Your task to perform on an android device: find snoozed emails in the gmail app Image 0: 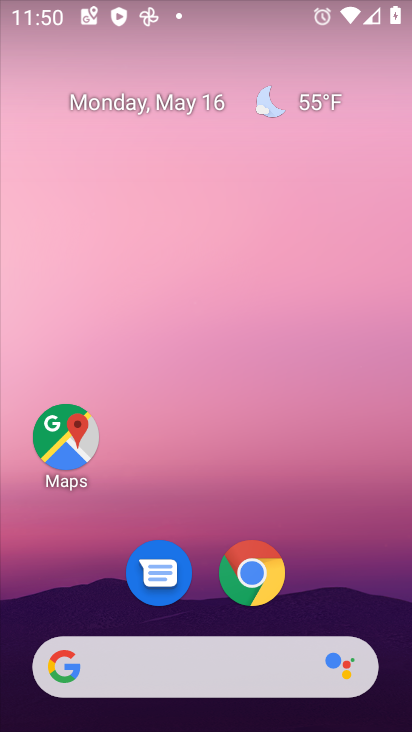
Step 0: drag from (365, 564) to (277, 42)
Your task to perform on an android device: find snoozed emails in the gmail app Image 1: 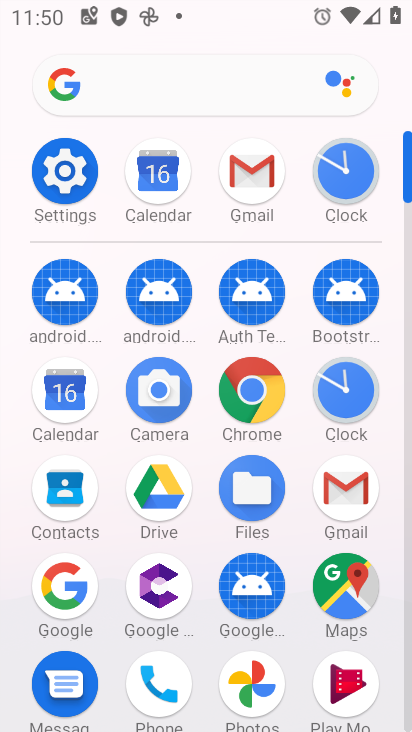
Step 1: click (265, 152)
Your task to perform on an android device: find snoozed emails in the gmail app Image 2: 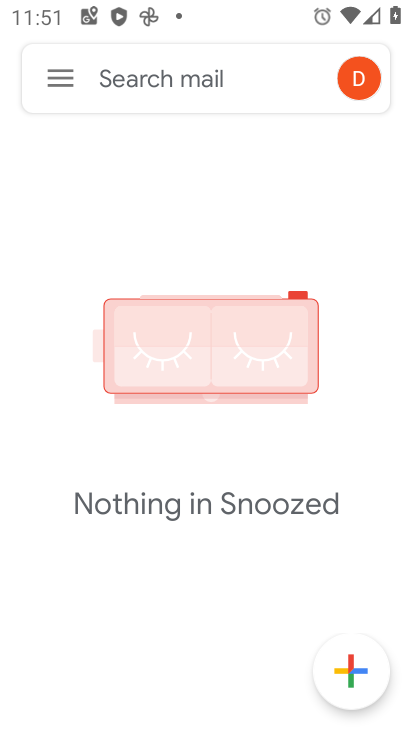
Step 2: click (50, 92)
Your task to perform on an android device: find snoozed emails in the gmail app Image 3: 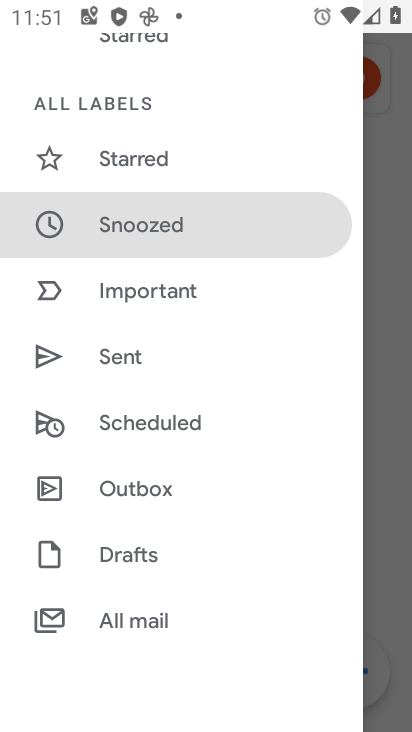
Step 3: click (136, 239)
Your task to perform on an android device: find snoozed emails in the gmail app Image 4: 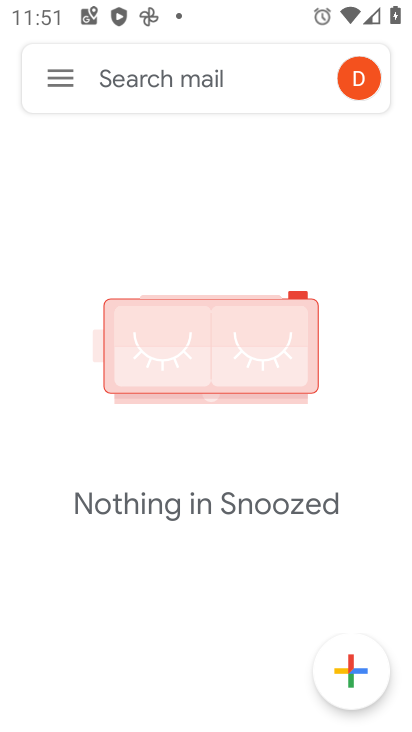
Step 4: task complete